Your task to perform on an android device: add a label to a message in the gmail app Image 0: 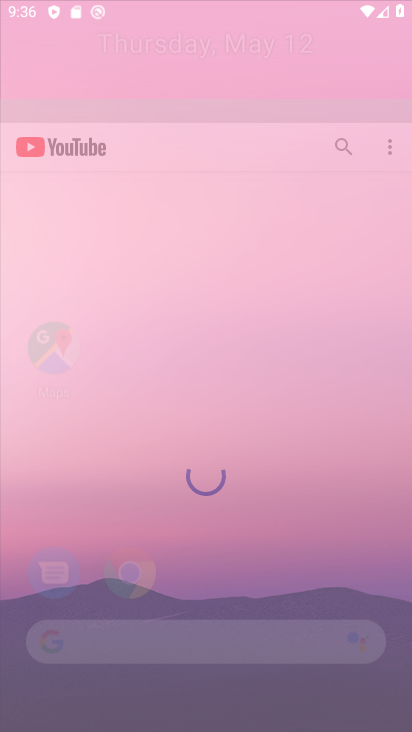
Step 0: click (250, 153)
Your task to perform on an android device: add a label to a message in the gmail app Image 1: 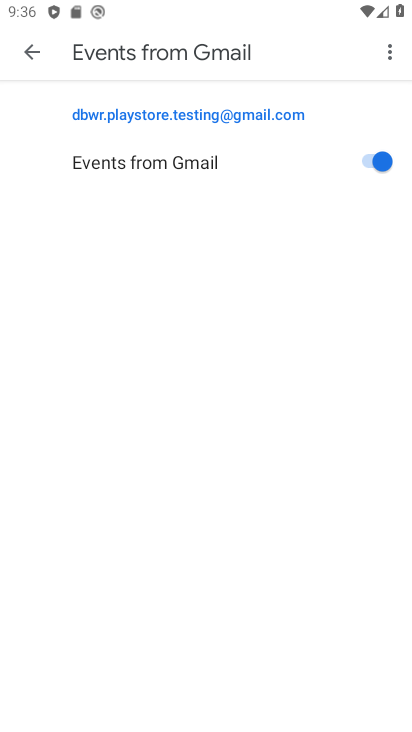
Step 1: press home button
Your task to perform on an android device: add a label to a message in the gmail app Image 2: 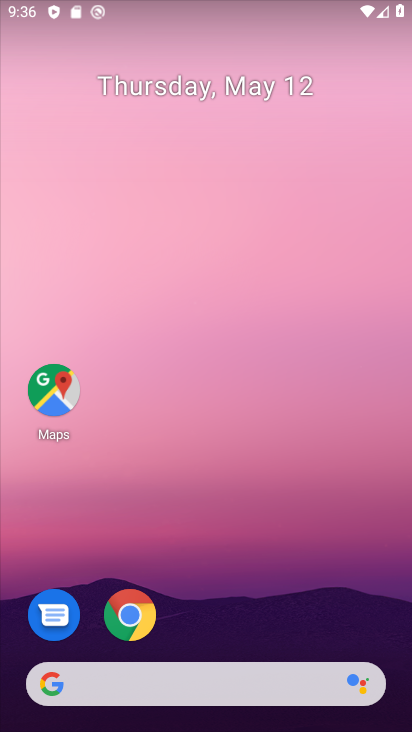
Step 2: drag from (323, 566) to (348, 163)
Your task to perform on an android device: add a label to a message in the gmail app Image 3: 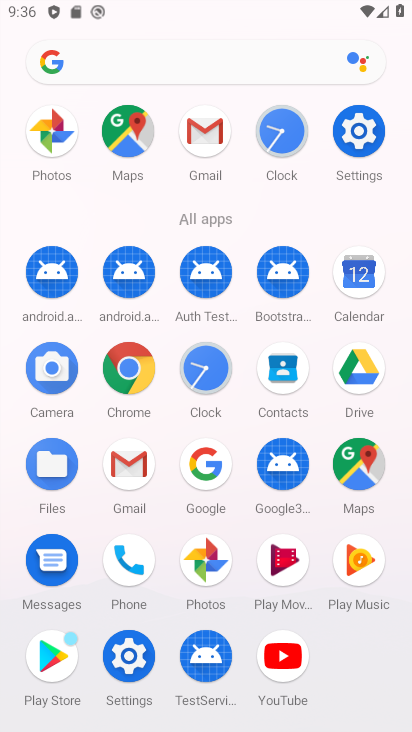
Step 3: click (130, 466)
Your task to perform on an android device: add a label to a message in the gmail app Image 4: 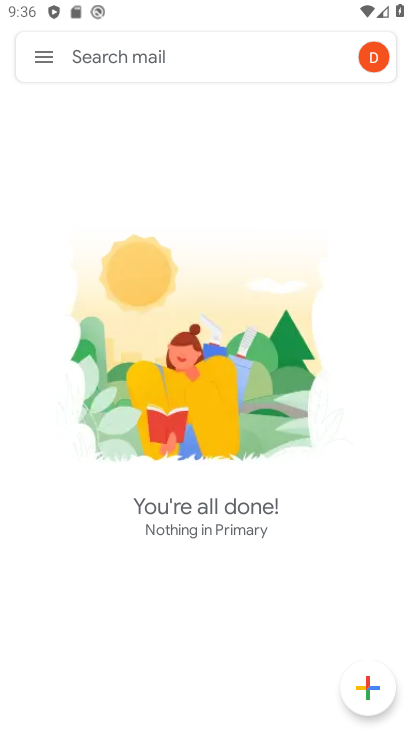
Step 4: click (40, 57)
Your task to perform on an android device: add a label to a message in the gmail app Image 5: 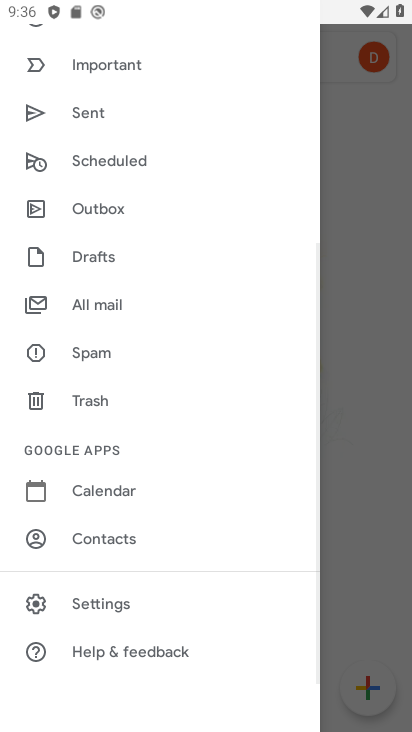
Step 5: click (119, 303)
Your task to perform on an android device: add a label to a message in the gmail app Image 6: 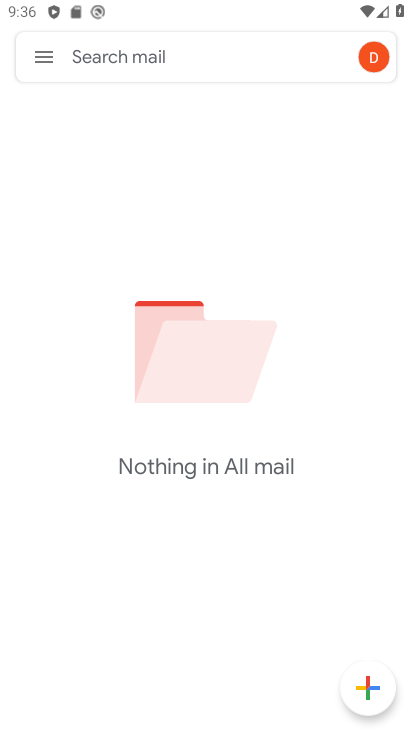
Step 6: task complete